Your task to perform on an android device: Go to display settings Image 0: 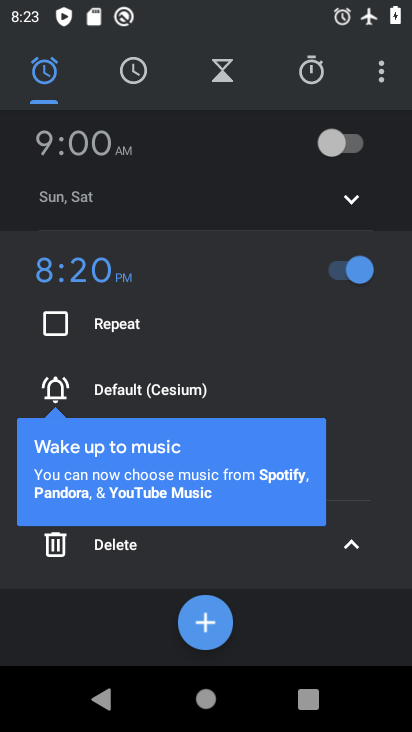
Step 0: press home button
Your task to perform on an android device: Go to display settings Image 1: 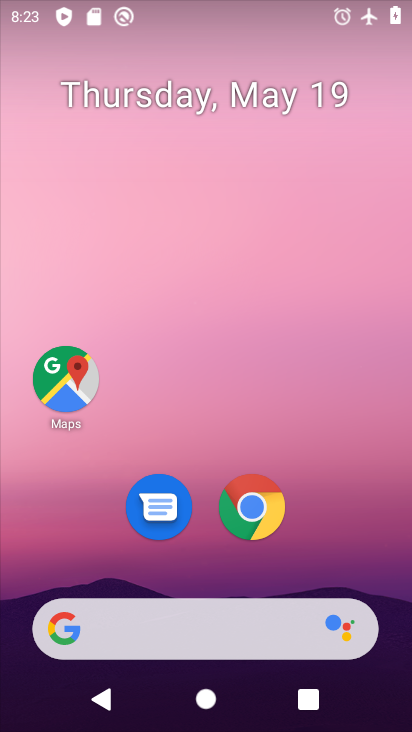
Step 1: drag from (231, 710) to (236, 226)
Your task to perform on an android device: Go to display settings Image 2: 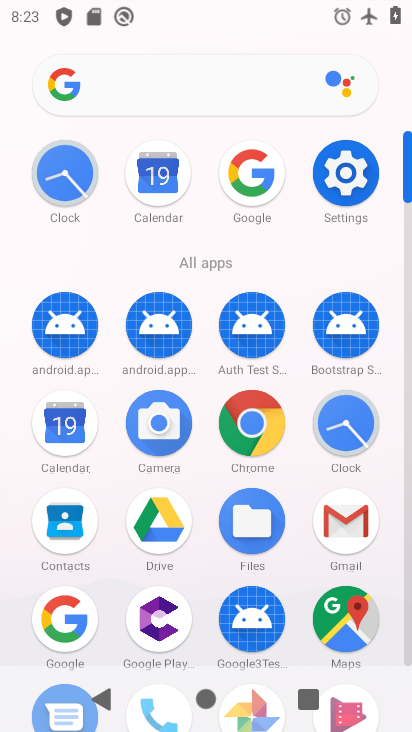
Step 2: click (351, 170)
Your task to perform on an android device: Go to display settings Image 3: 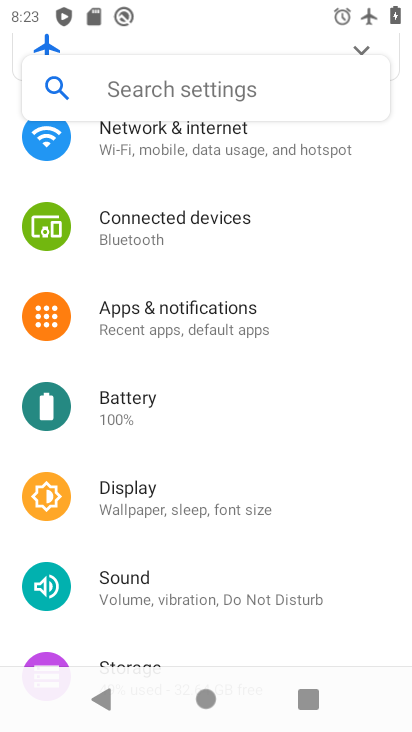
Step 3: click (125, 505)
Your task to perform on an android device: Go to display settings Image 4: 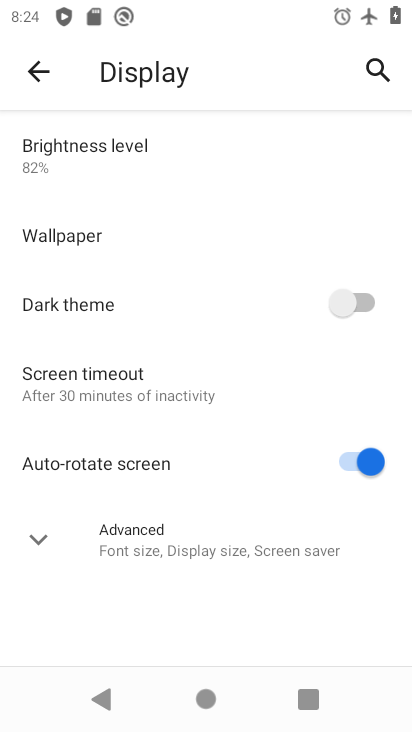
Step 4: task complete